Your task to perform on an android device: turn on the 24-hour format for clock Image 0: 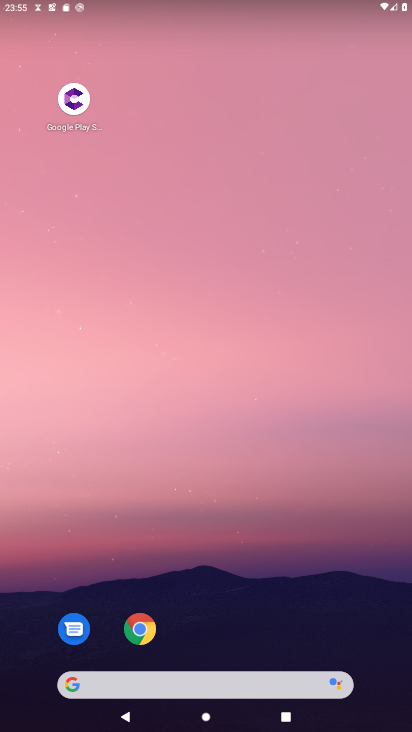
Step 0: drag from (226, 587) to (235, 110)
Your task to perform on an android device: turn on the 24-hour format for clock Image 1: 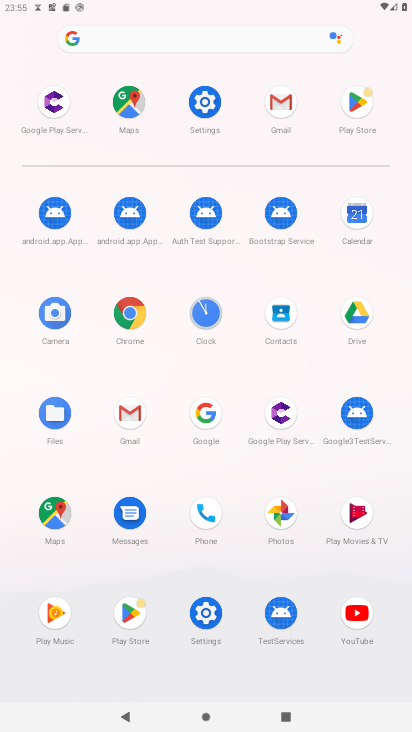
Step 1: click (201, 314)
Your task to perform on an android device: turn on the 24-hour format for clock Image 2: 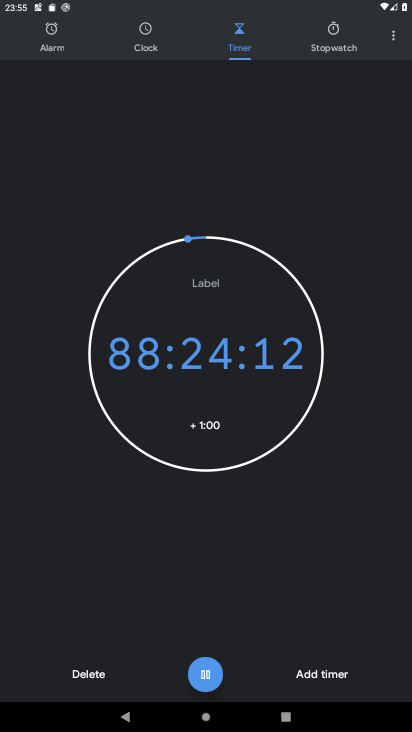
Step 2: click (399, 30)
Your task to perform on an android device: turn on the 24-hour format for clock Image 3: 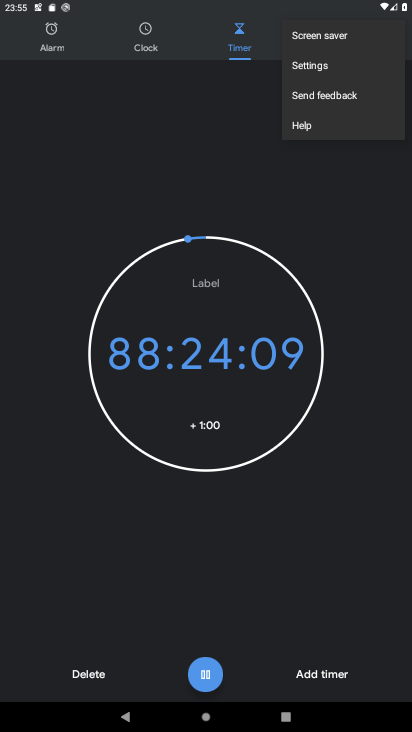
Step 3: click (341, 58)
Your task to perform on an android device: turn on the 24-hour format for clock Image 4: 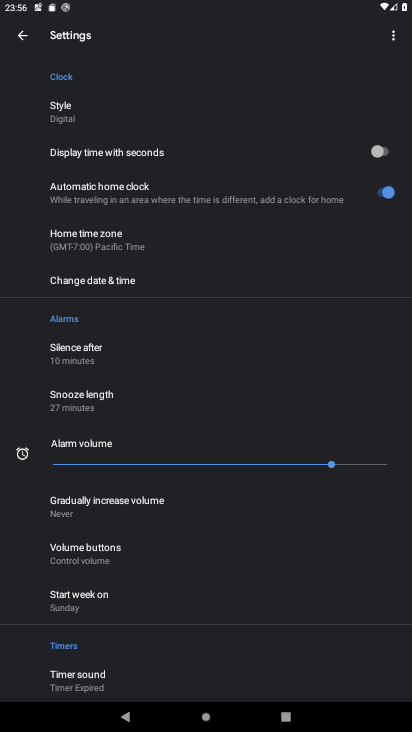
Step 4: click (106, 276)
Your task to perform on an android device: turn on the 24-hour format for clock Image 5: 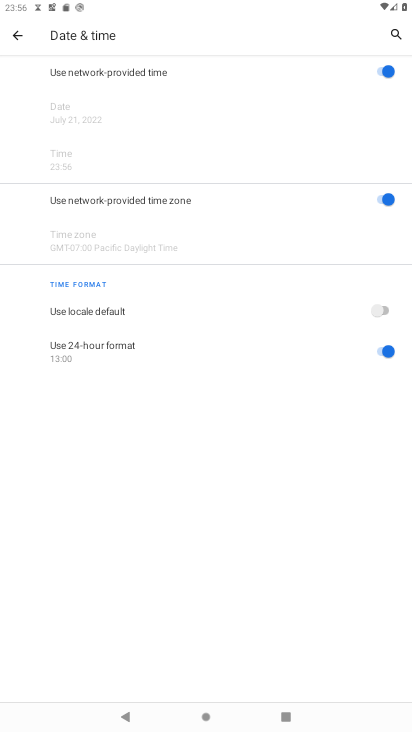
Step 5: task complete